Your task to perform on an android device: check out phone information Image 0: 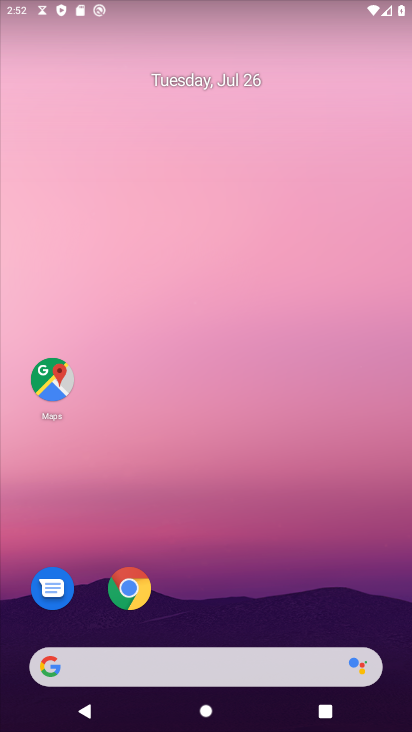
Step 0: drag from (330, 620) to (409, 84)
Your task to perform on an android device: check out phone information Image 1: 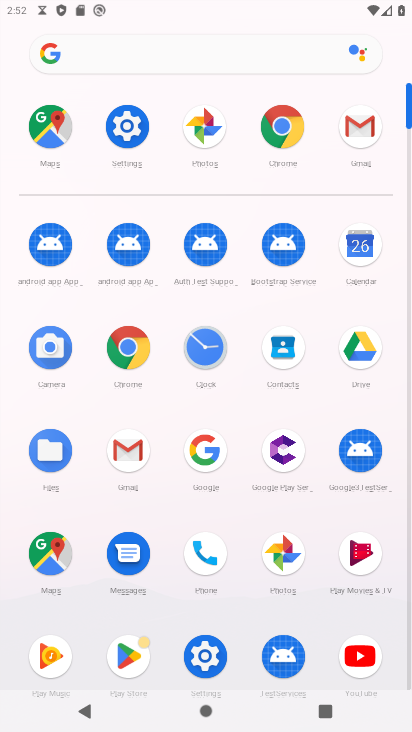
Step 1: click (134, 118)
Your task to perform on an android device: check out phone information Image 2: 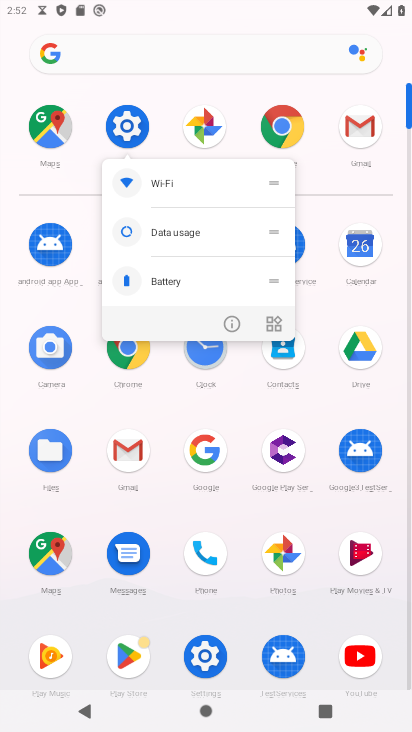
Step 2: click (136, 119)
Your task to perform on an android device: check out phone information Image 3: 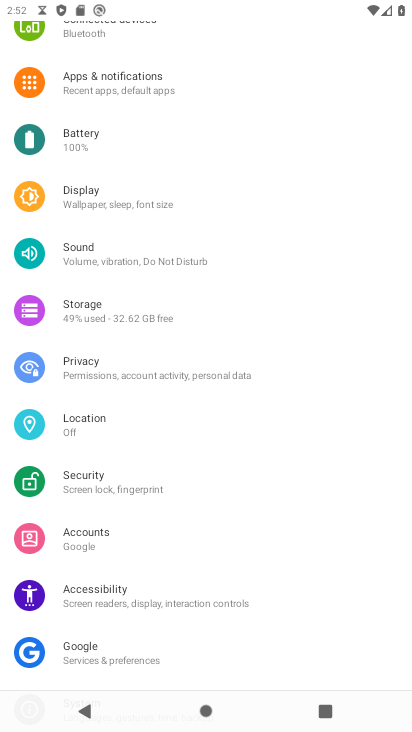
Step 3: drag from (196, 596) to (223, 104)
Your task to perform on an android device: check out phone information Image 4: 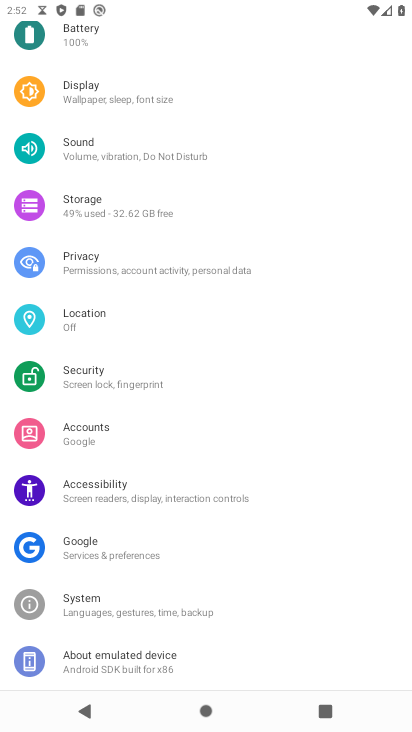
Step 4: click (143, 653)
Your task to perform on an android device: check out phone information Image 5: 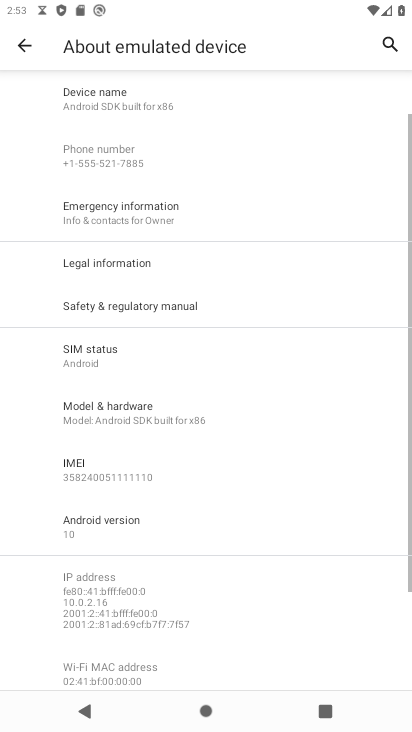
Step 5: task complete